Your task to perform on an android device: Go to eBay Image 0: 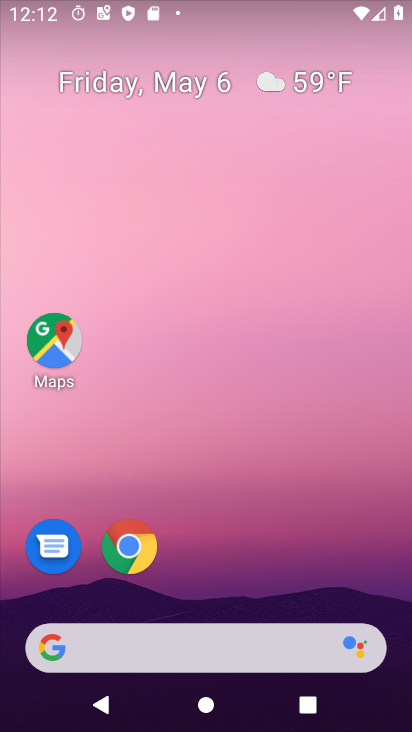
Step 0: click (128, 548)
Your task to perform on an android device: Go to eBay Image 1: 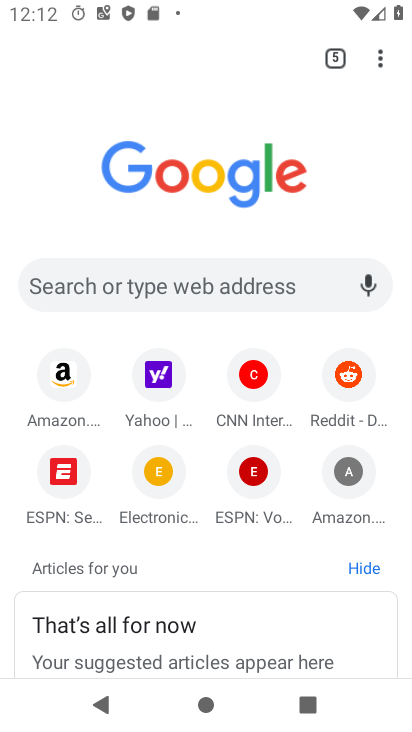
Step 1: click (181, 292)
Your task to perform on an android device: Go to eBay Image 2: 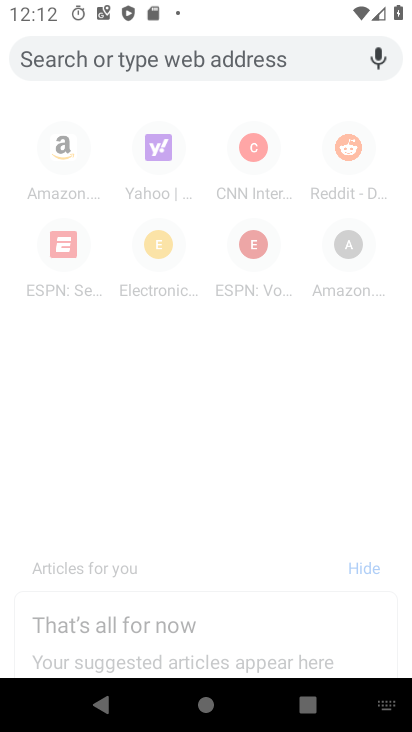
Step 2: type "ebay"
Your task to perform on an android device: Go to eBay Image 3: 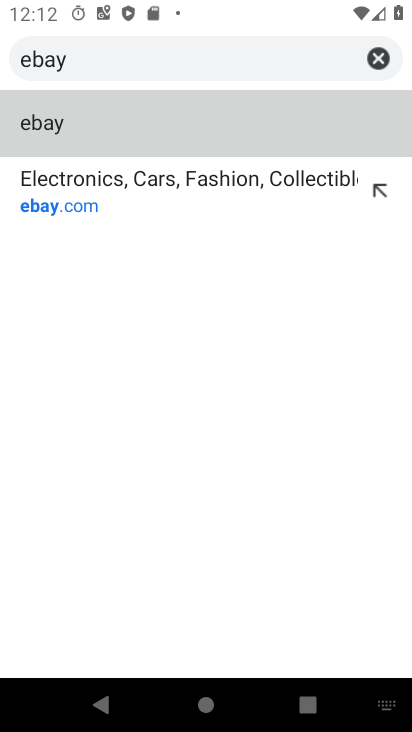
Step 3: click (135, 191)
Your task to perform on an android device: Go to eBay Image 4: 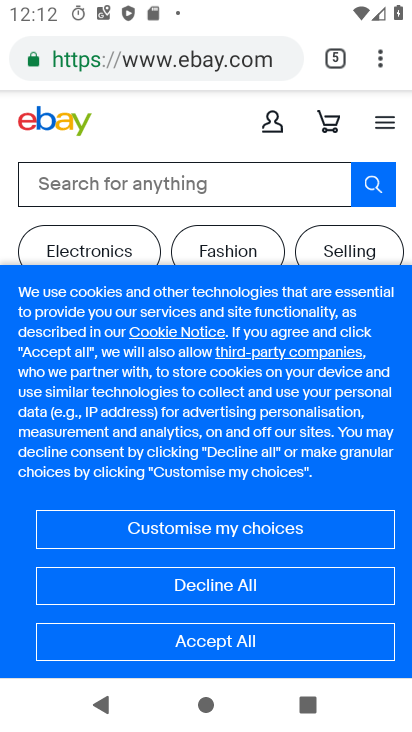
Step 4: task complete